Your task to perform on an android device: manage bookmarks in the chrome app Image 0: 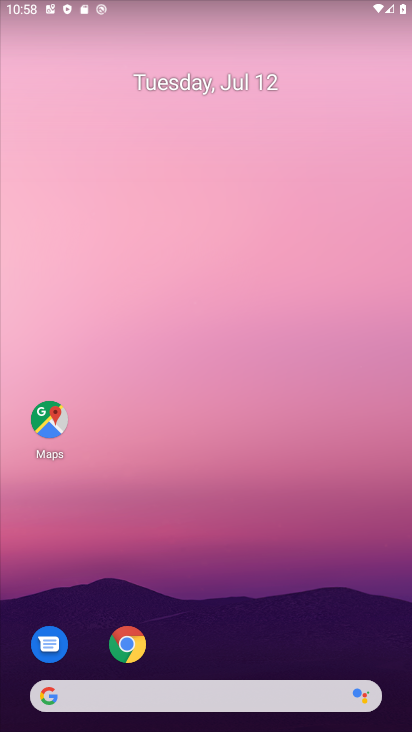
Step 0: click (123, 638)
Your task to perform on an android device: manage bookmarks in the chrome app Image 1: 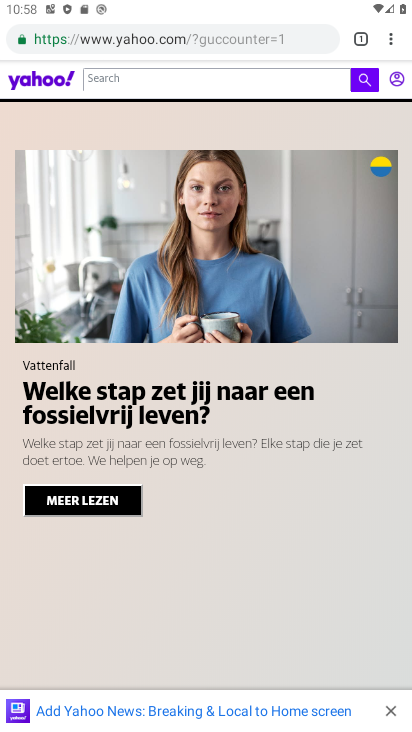
Step 1: click (390, 34)
Your task to perform on an android device: manage bookmarks in the chrome app Image 2: 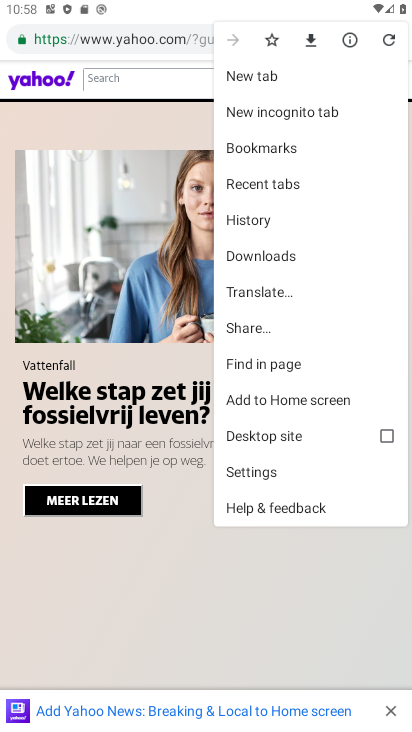
Step 2: click (294, 141)
Your task to perform on an android device: manage bookmarks in the chrome app Image 3: 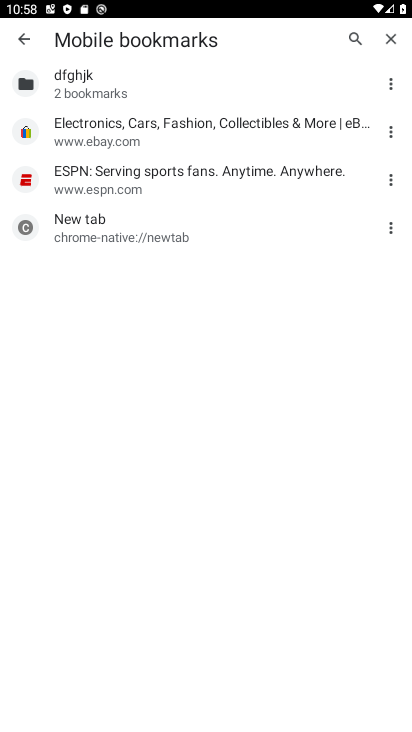
Step 3: click (390, 226)
Your task to perform on an android device: manage bookmarks in the chrome app Image 4: 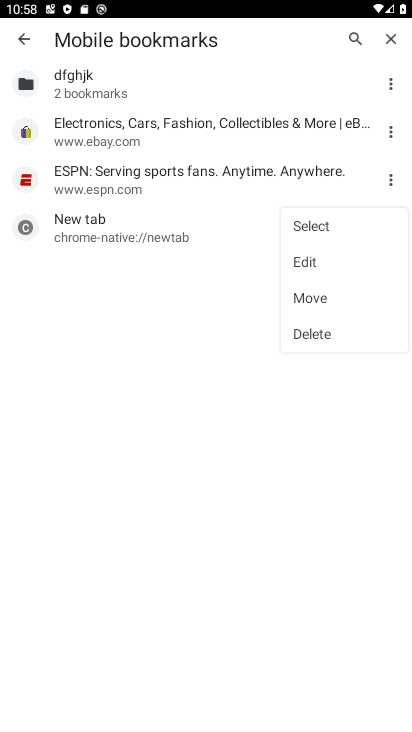
Step 4: click (335, 336)
Your task to perform on an android device: manage bookmarks in the chrome app Image 5: 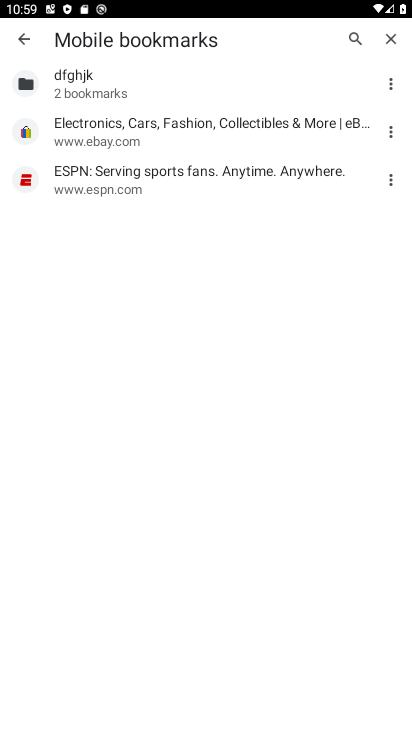
Step 5: task complete